Your task to perform on an android device: toggle sleep mode Image 0: 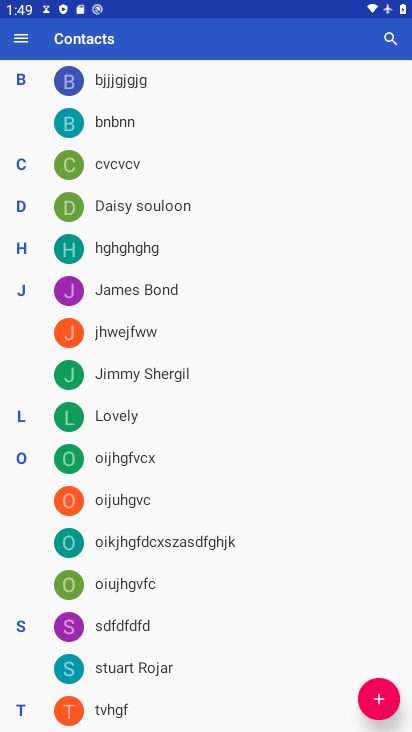
Step 0: press back button
Your task to perform on an android device: toggle sleep mode Image 1: 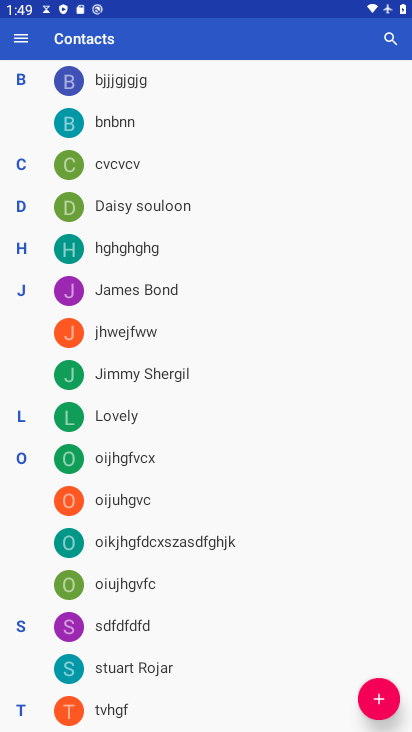
Step 1: press back button
Your task to perform on an android device: toggle sleep mode Image 2: 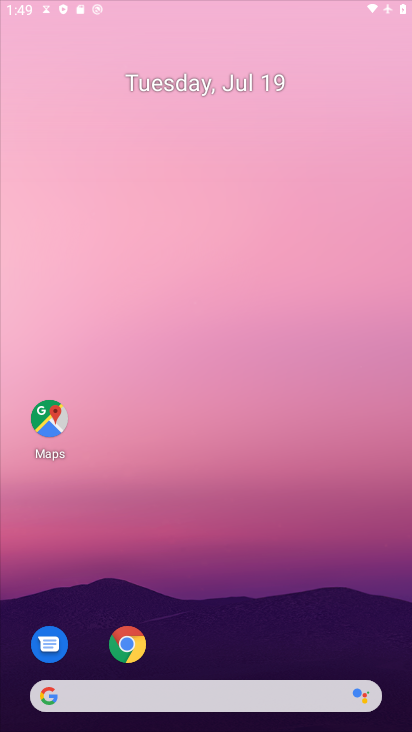
Step 2: press back button
Your task to perform on an android device: toggle sleep mode Image 3: 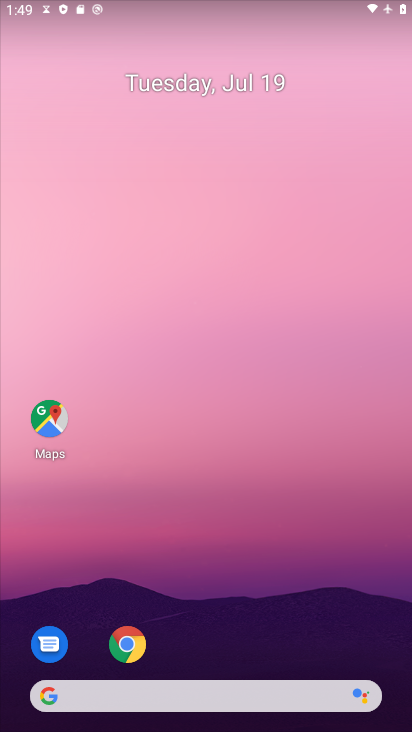
Step 3: drag from (294, 728) to (219, 61)
Your task to perform on an android device: toggle sleep mode Image 4: 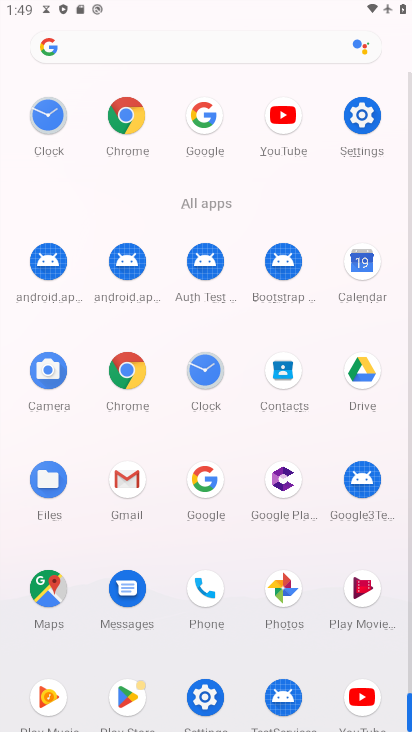
Step 4: click (358, 116)
Your task to perform on an android device: toggle sleep mode Image 5: 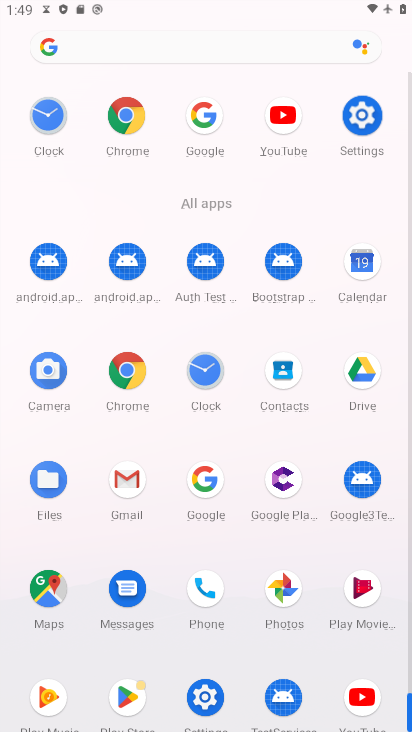
Step 5: click (362, 113)
Your task to perform on an android device: toggle sleep mode Image 6: 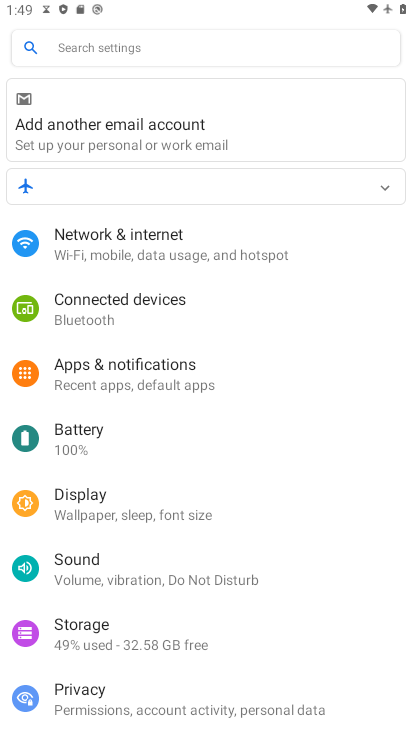
Step 6: click (80, 512)
Your task to perform on an android device: toggle sleep mode Image 7: 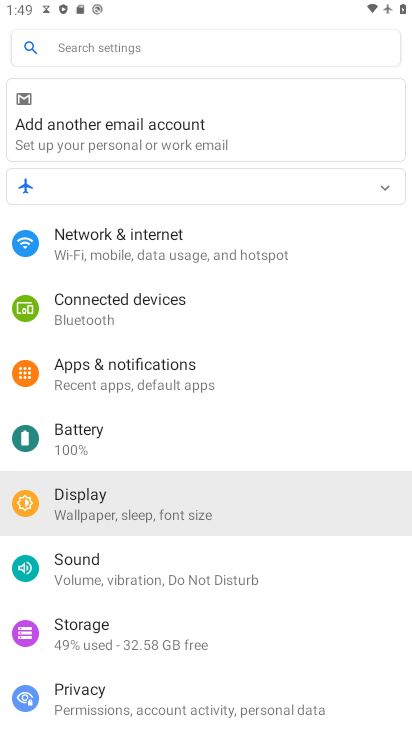
Step 7: click (81, 511)
Your task to perform on an android device: toggle sleep mode Image 8: 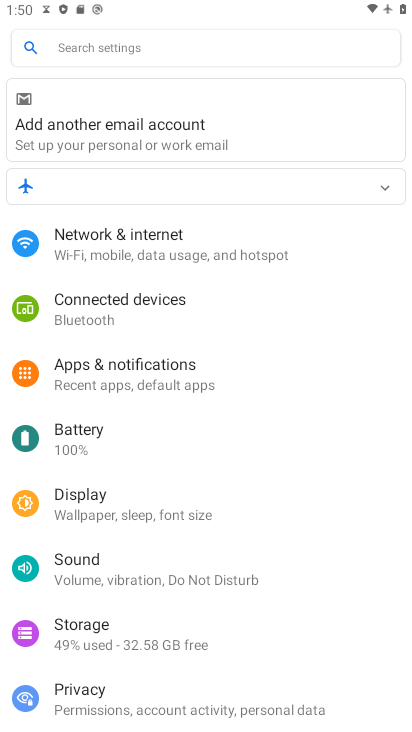
Step 8: click (82, 510)
Your task to perform on an android device: toggle sleep mode Image 9: 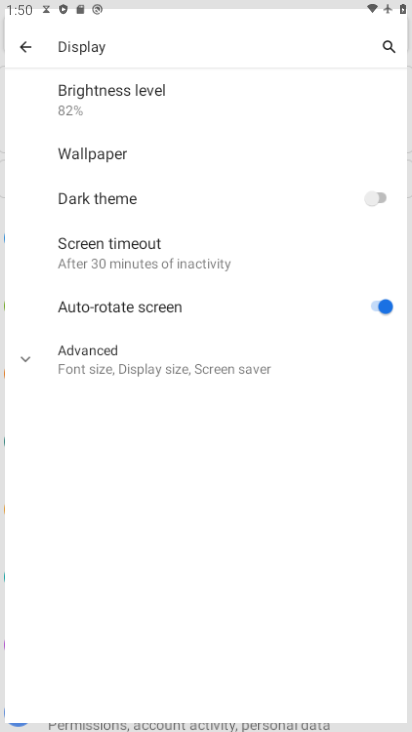
Step 9: click (82, 510)
Your task to perform on an android device: toggle sleep mode Image 10: 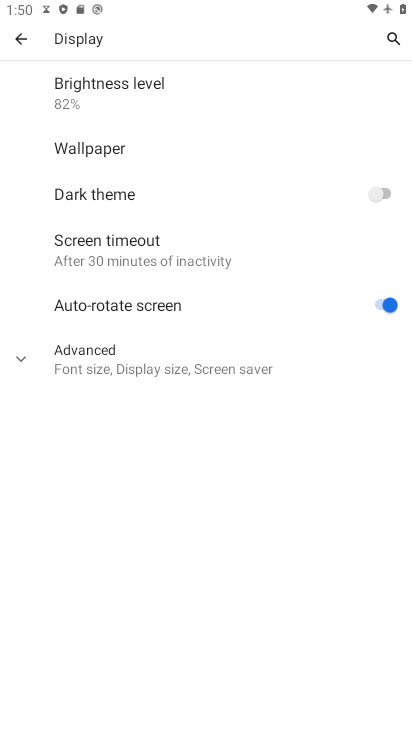
Step 10: click (109, 249)
Your task to perform on an android device: toggle sleep mode Image 11: 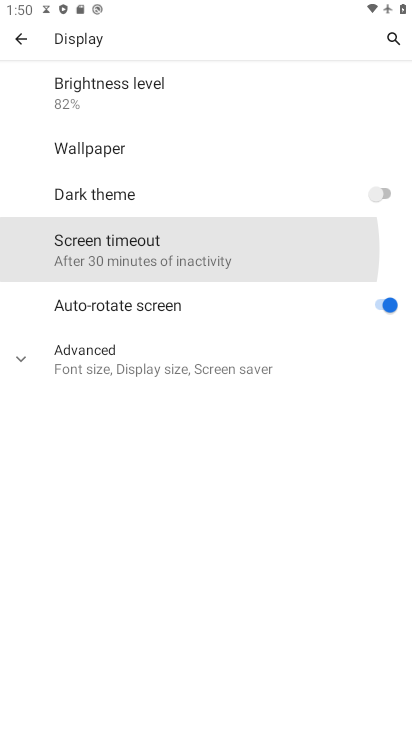
Step 11: click (110, 247)
Your task to perform on an android device: toggle sleep mode Image 12: 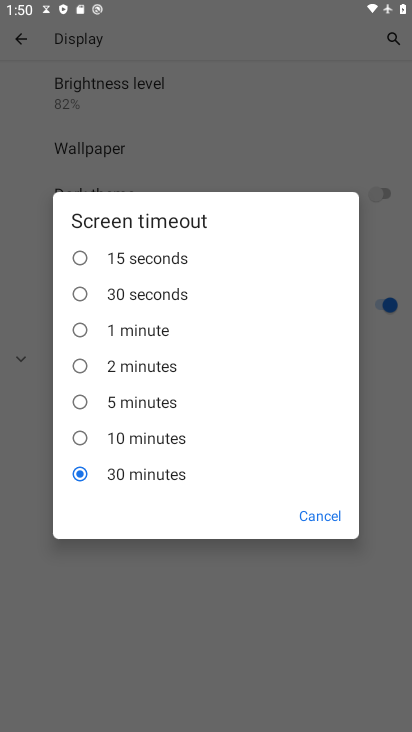
Step 12: task complete